Your task to perform on an android device: Go to calendar. Show me events next week Image 0: 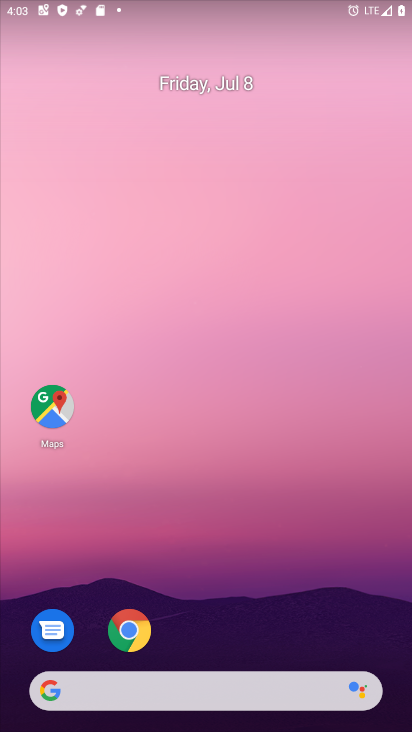
Step 0: drag from (220, 638) to (247, 95)
Your task to perform on an android device: Go to calendar. Show me events next week Image 1: 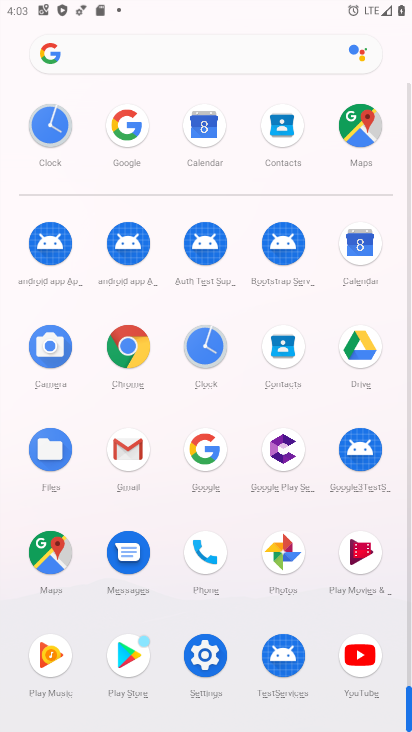
Step 1: click (366, 243)
Your task to perform on an android device: Go to calendar. Show me events next week Image 2: 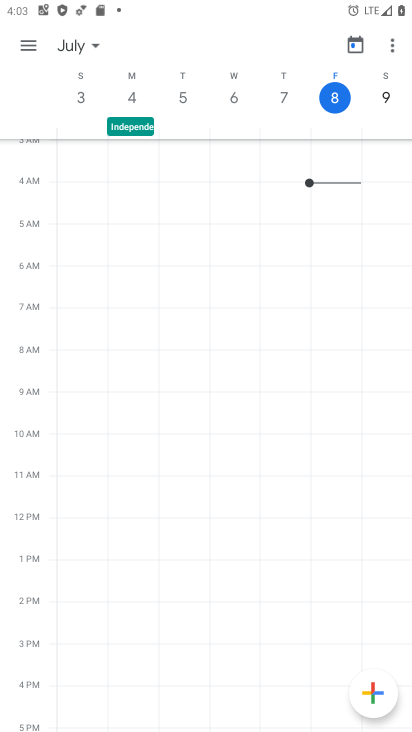
Step 2: click (353, 40)
Your task to perform on an android device: Go to calendar. Show me events next week Image 3: 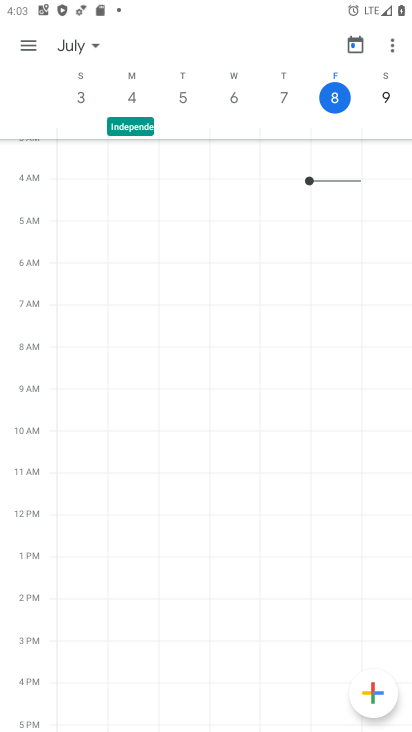
Step 3: click (360, 48)
Your task to perform on an android device: Go to calendar. Show me events next week Image 4: 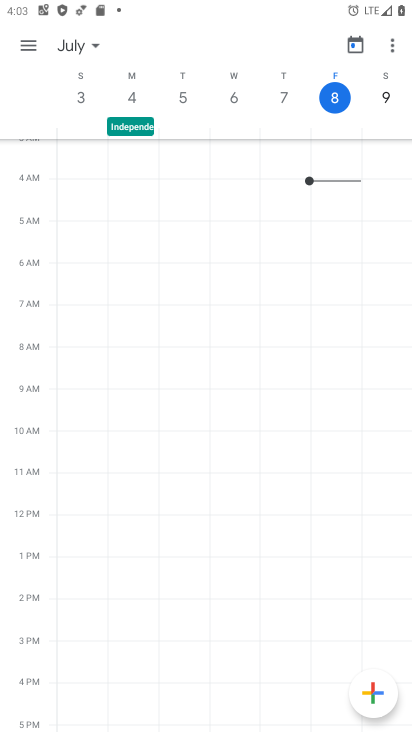
Step 4: click (98, 49)
Your task to perform on an android device: Go to calendar. Show me events next week Image 5: 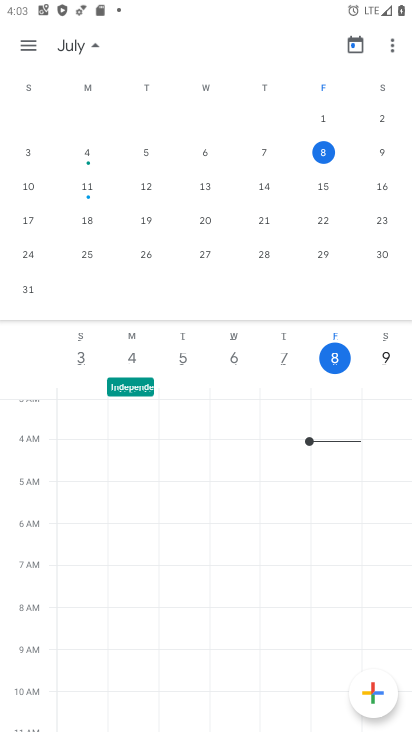
Step 5: click (84, 183)
Your task to perform on an android device: Go to calendar. Show me events next week Image 6: 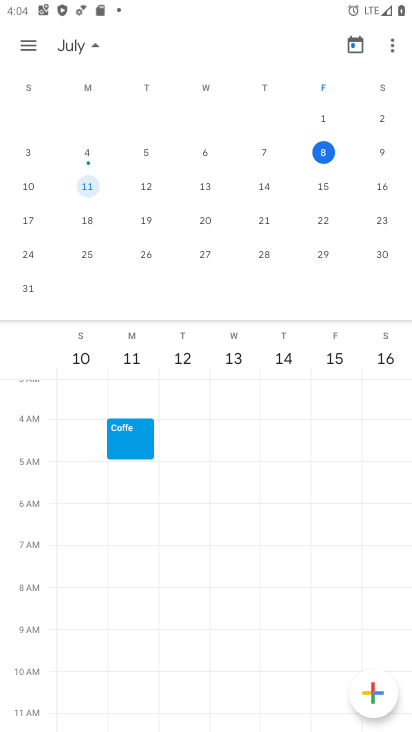
Step 6: click (32, 47)
Your task to perform on an android device: Go to calendar. Show me events next week Image 7: 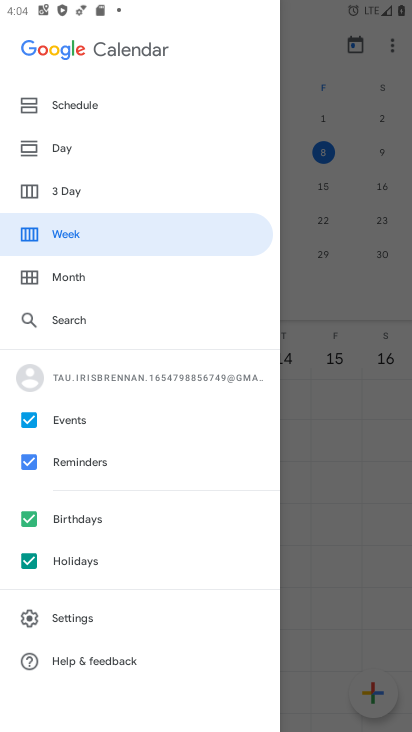
Step 7: click (77, 226)
Your task to perform on an android device: Go to calendar. Show me events next week Image 8: 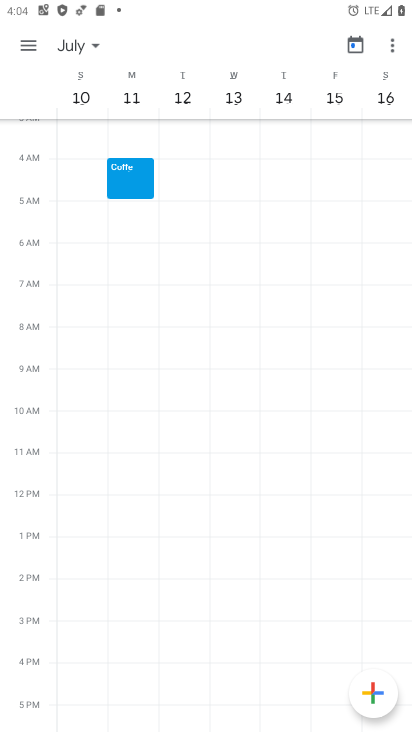
Step 8: task complete